Your task to perform on an android device: choose inbox layout in the gmail app Image 0: 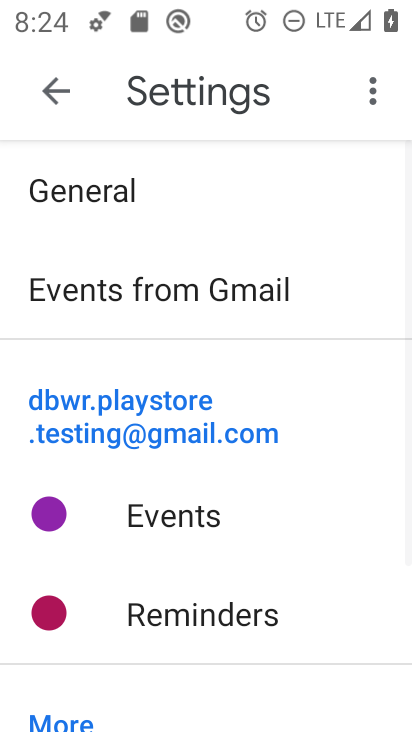
Step 0: press home button
Your task to perform on an android device: choose inbox layout in the gmail app Image 1: 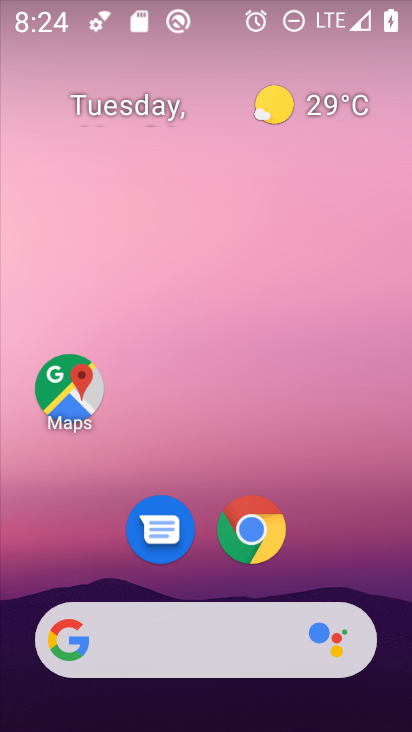
Step 1: drag from (386, 632) to (241, 91)
Your task to perform on an android device: choose inbox layout in the gmail app Image 2: 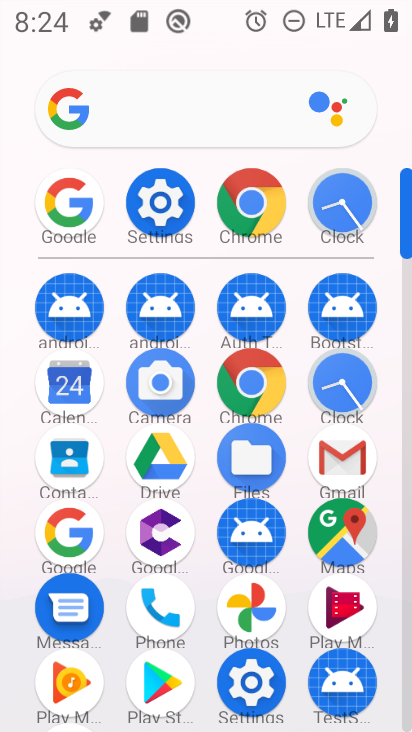
Step 2: click (332, 470)
Your task to perform on an android device: choose inbox layout in the gmail app Image 3: 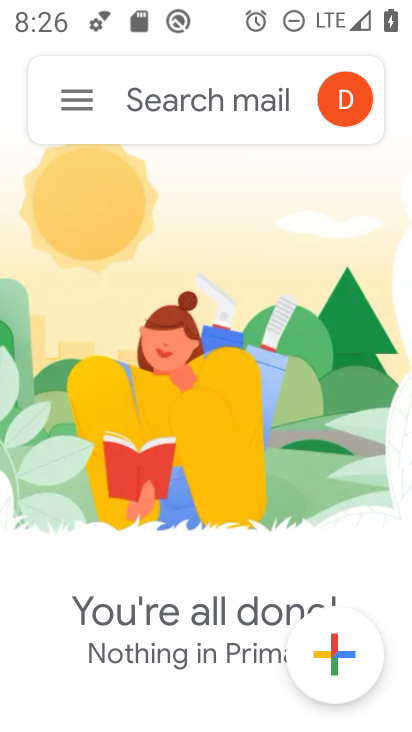
Step 3: task complete